Your task to perform on an android device: Go to wifi settings Image 0: 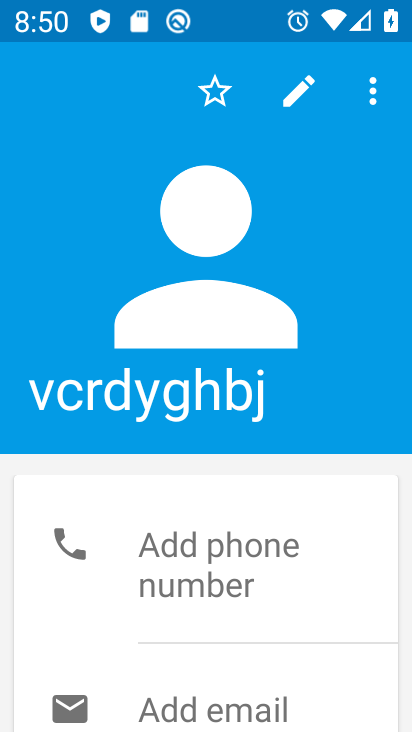
Step 0: press home button
Your task to perform on an android device: Go to wifi settings Image 1: 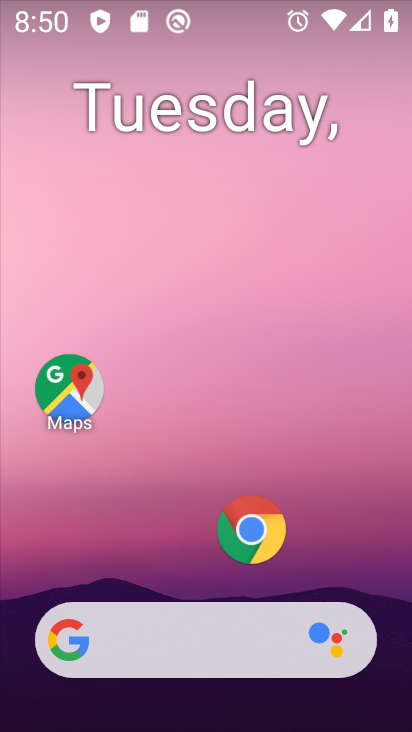
Step 1: drag from (195, 573) to (195, 71)
Your task to perform on an android device: Go to wifi settings Image 2: 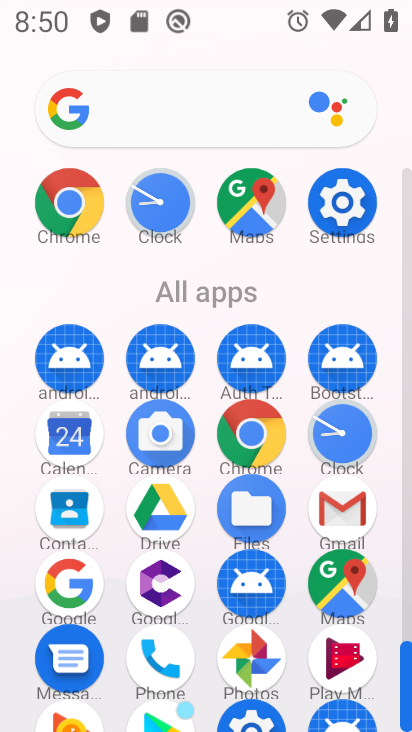
Step 2: click (342, 192)
Your task to perform on an android device: Go to wifi settings Image 3: 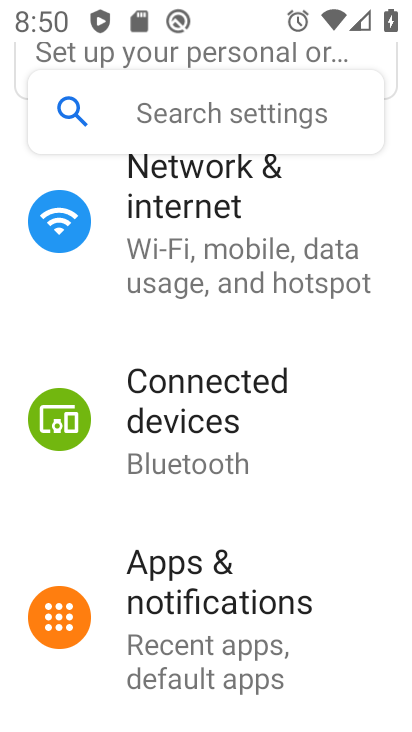
Step 3: click (181, 194)
Your task to perform on an android device: Go to wifi settings Image 4: 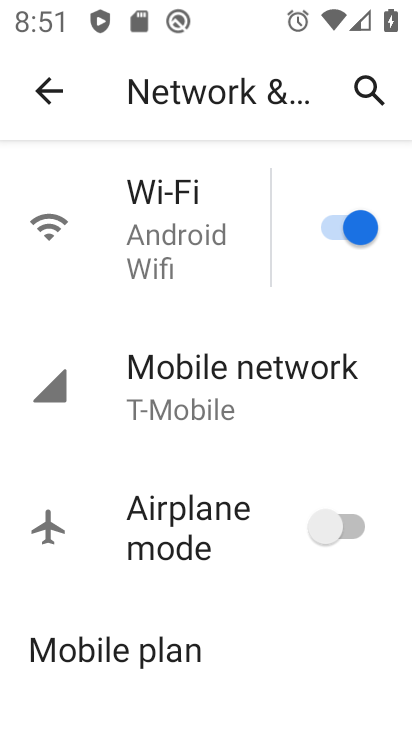
Step 4: click (165, 230)
Your task to perform on an android device: Go to wifi settings Image 5: 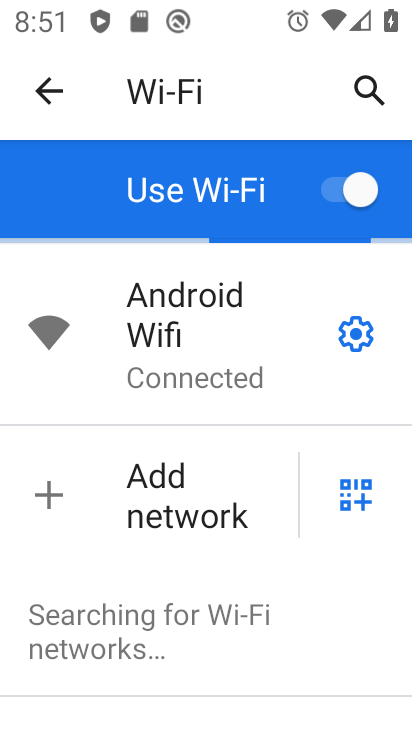
Step 5: task complete